Your task to perform on an android device: Open wifi settings Image 0: 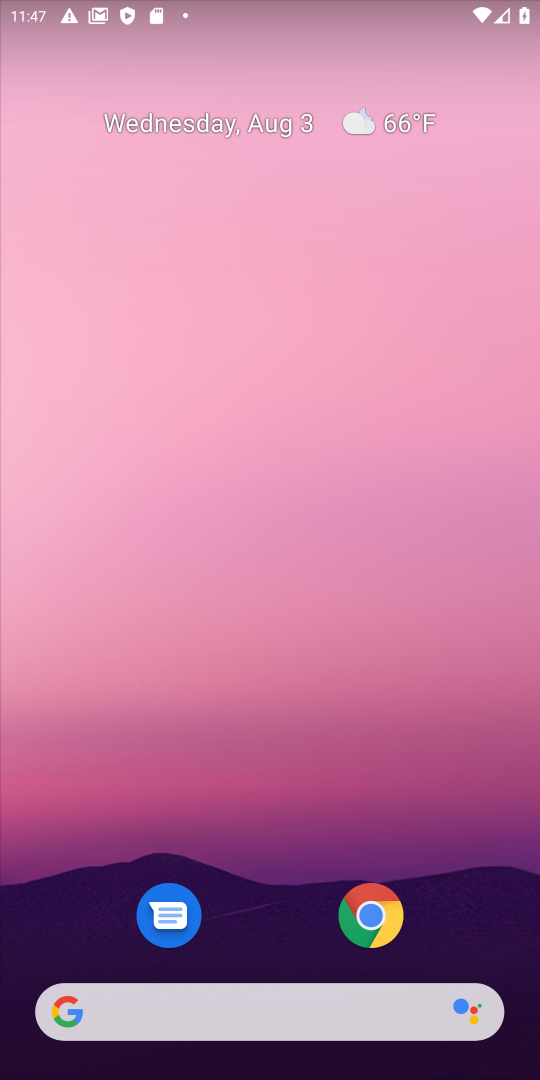
Step 0: drag from (227, 764) to (359, 189)
Your task to perform on an android device: Open wifi settings Image 1: 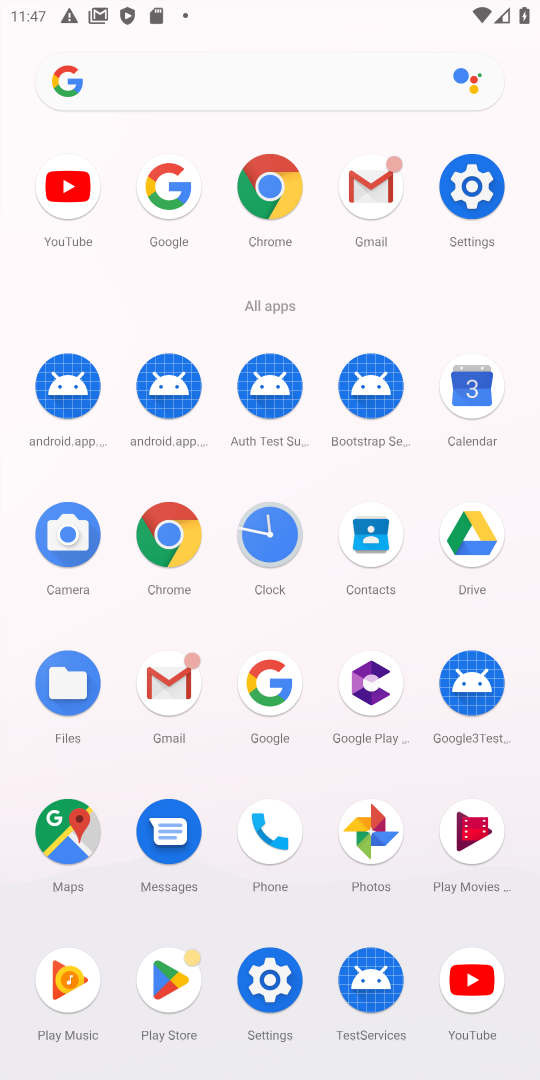
Step 1: click (478, 190)
Your task to perform on an android device: Open wifi settings Image 2: 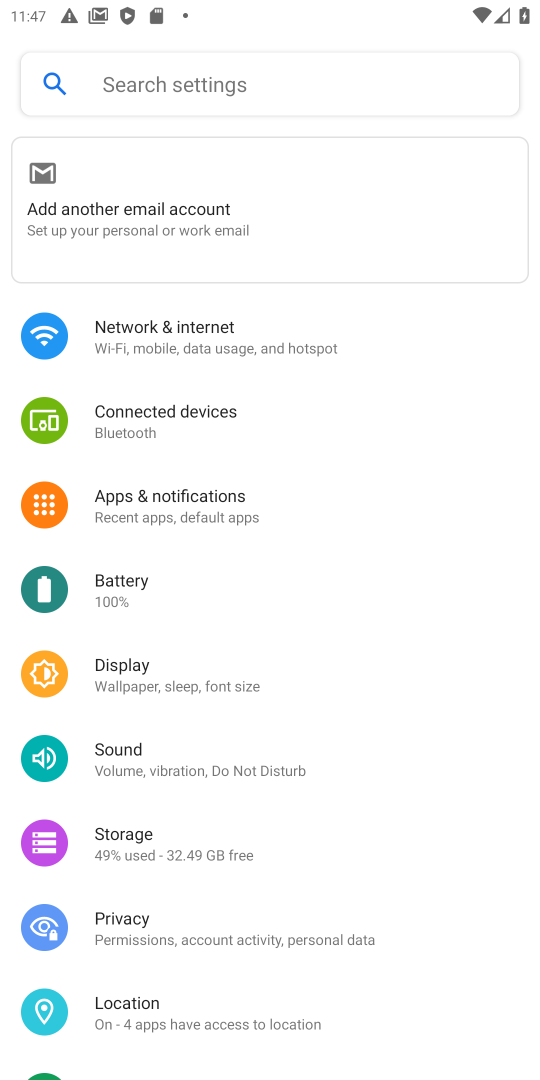
Step 2: click (134, 351)
Your task to perform on an android device: Open wifi settings Image 3: 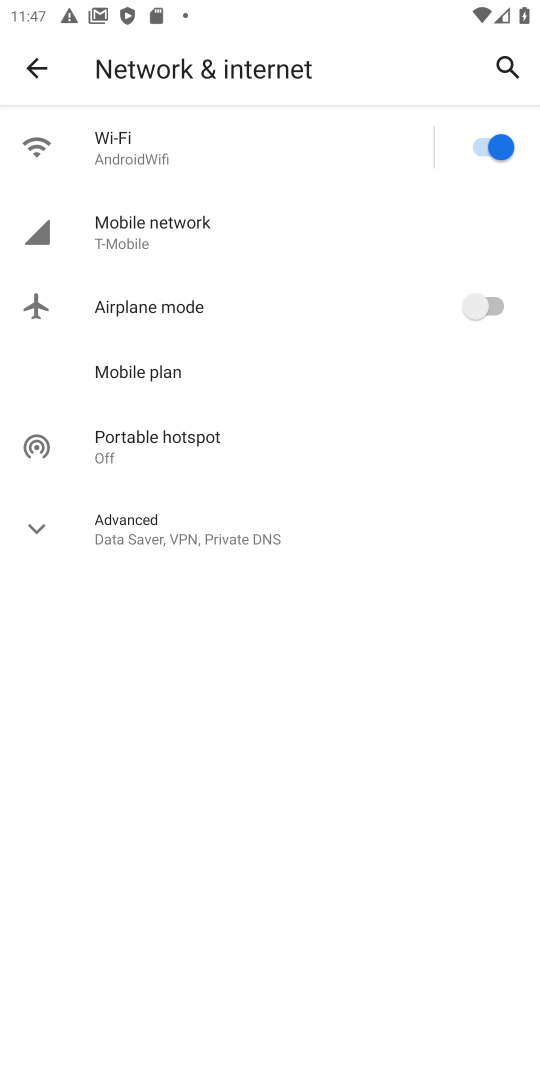
Step 3: click (188, 164)
Your task to perform on an android device: Open wifi settings Image 4: 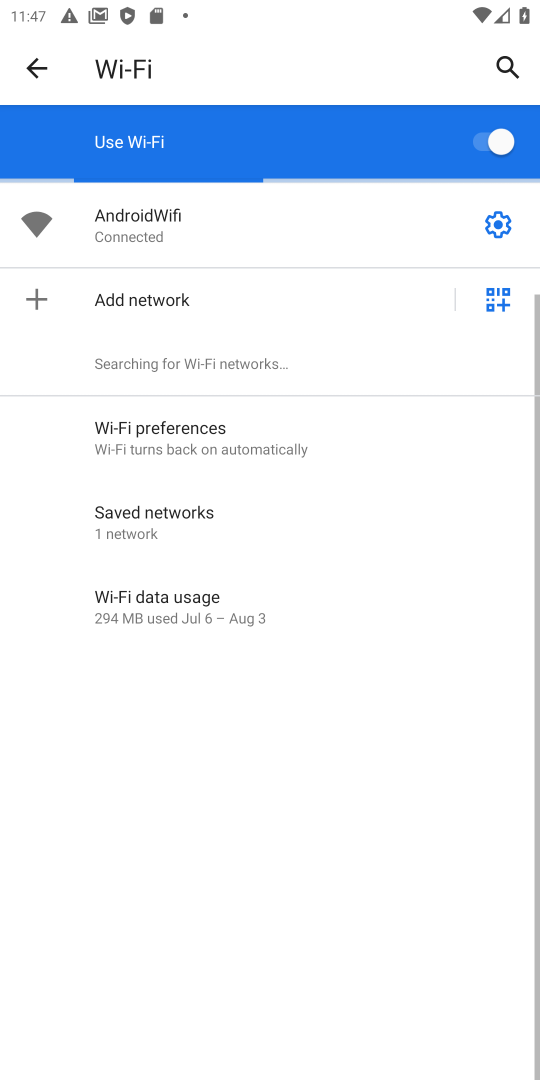
Step 4: task complete